Your task to perform on an android device: set an alarm Image 0: 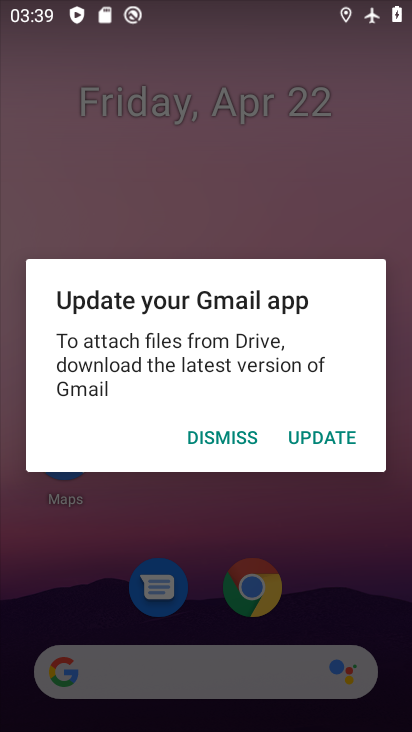
Step 0: press home button
Your task to perform on an android device: set an alarm Image 1: 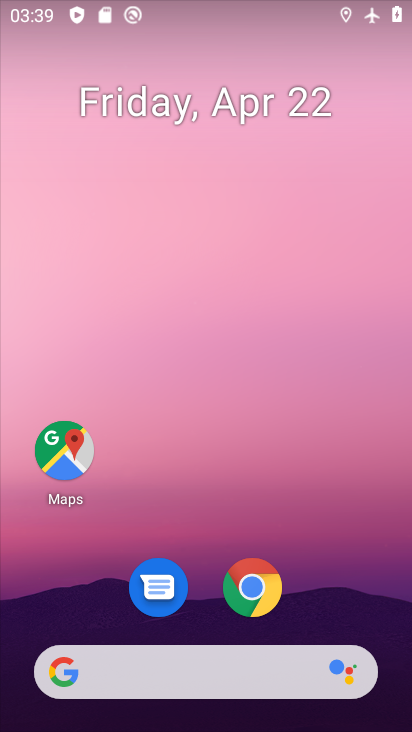
Step 1: drag from (220, 497) to (232, 15)
Your task to perform on an android device: set an alarm Image 2: 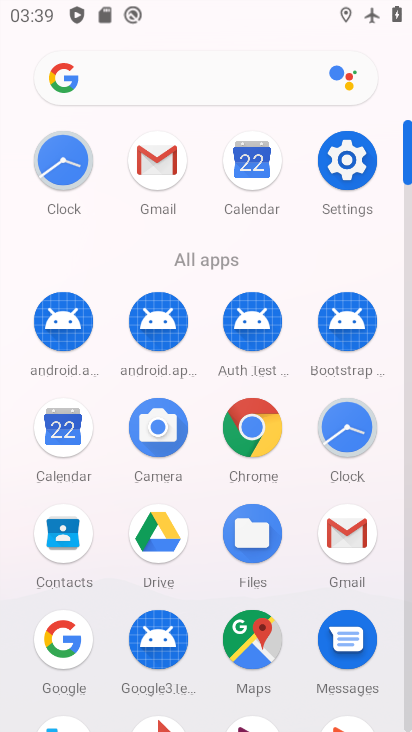
Step 2: click (61, 161)
Your task to perform on an android device: set an alarm Image 3: 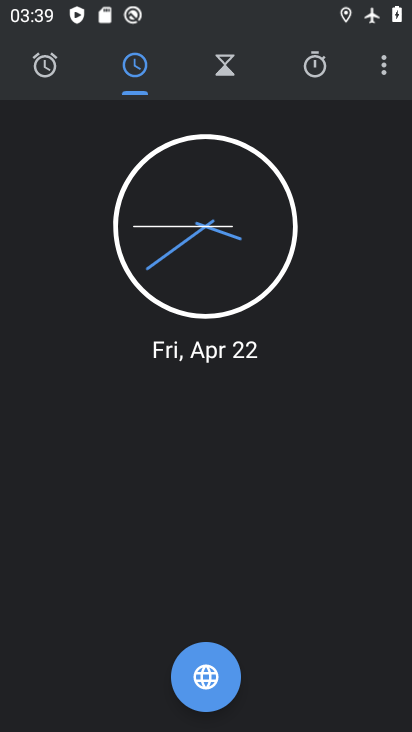
Step 3: click (41, 72)
Your task to perform on an android device: set an alarm Image 4: 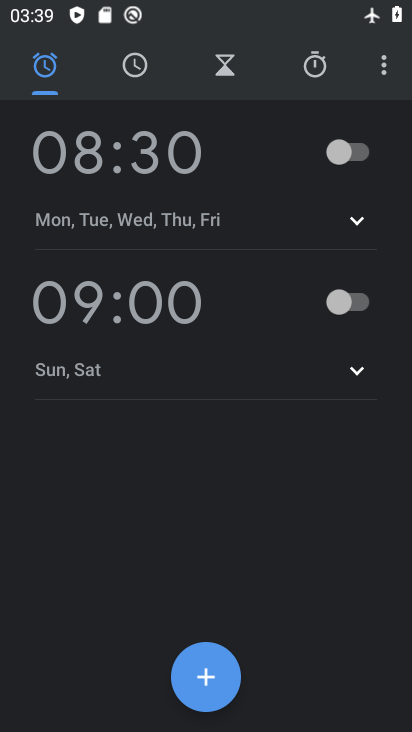
Step 4: click (201, 673)
Your task to perform on an android device: set an alarm Image 5: 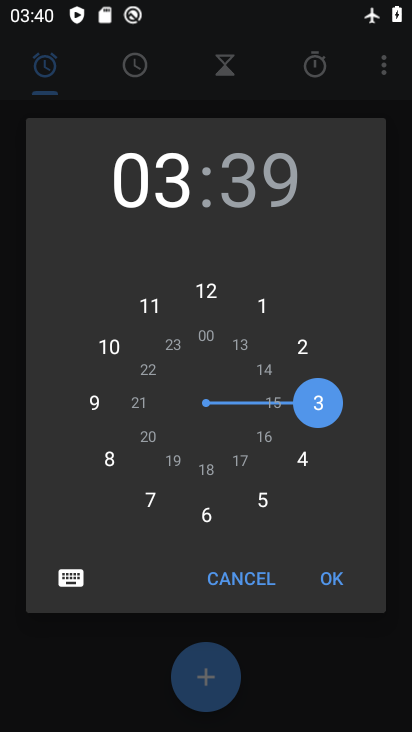
Step 5: click (213, 295)
Your task to perform on an android device: set an alarm Image 6: 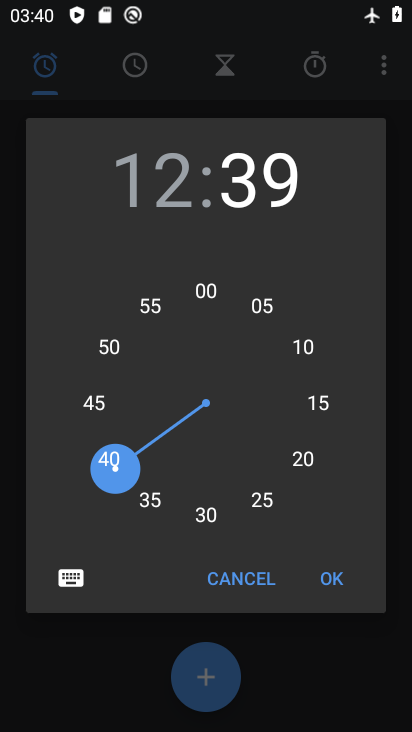
Step 6: click (257, 307)
Your task to perform on an android device: set an alarm Image 7: 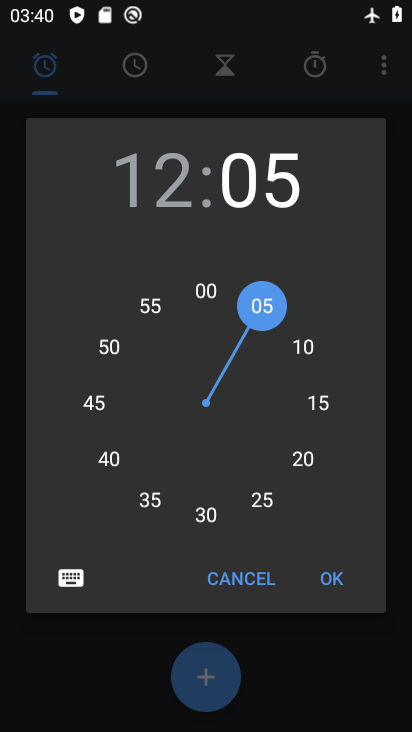
Step 7: click (143, 334)
Your task to perform on an android device: set an alarm Image 8: 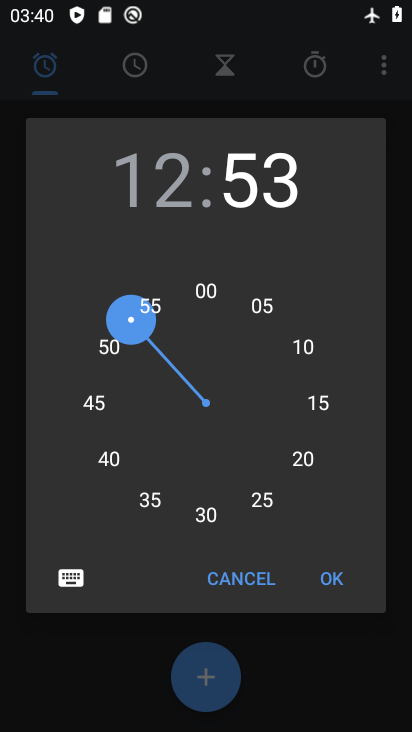
Step 8: click (149, 199)
Your task to perform on an android device: set an alarm Image 9: 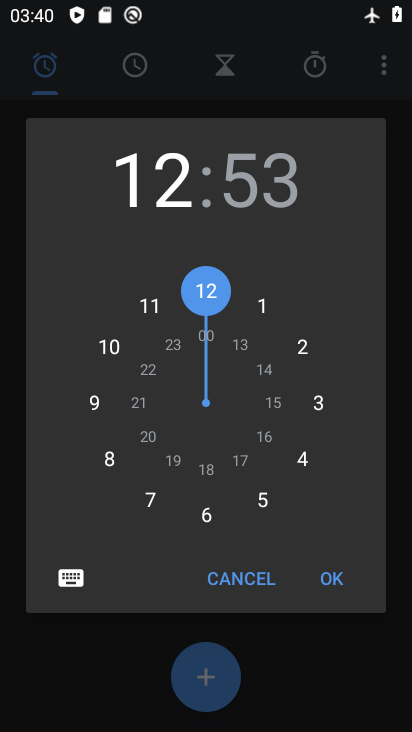
Step 9: click (259, 295)
Your task to perform on an android device: set an alarm Image 10: 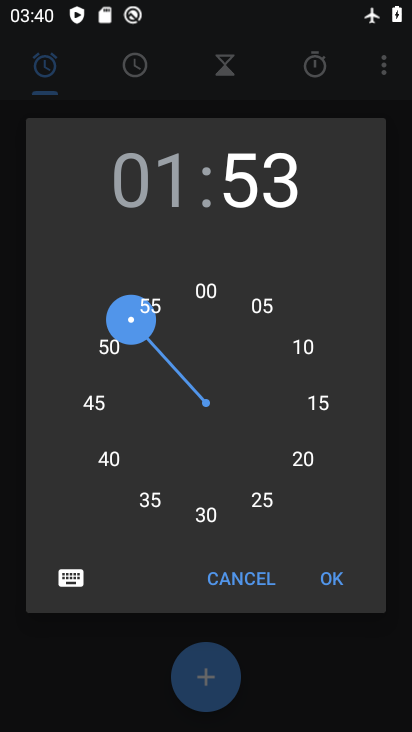
Step 10: click (337, 578)
Your task to perform on an android device: set an alarm Image 11: 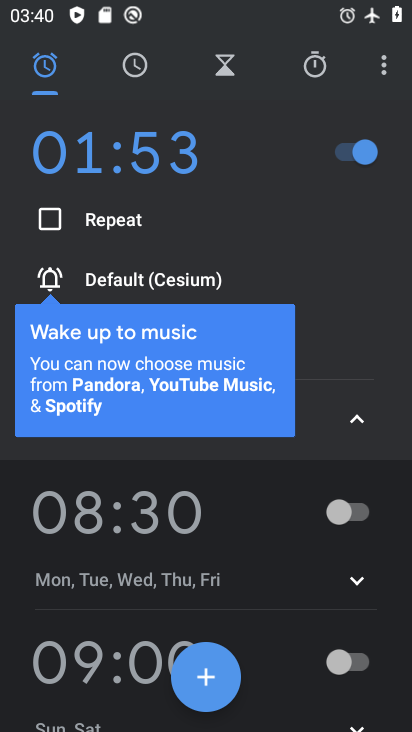
Step 11: click (350, 423)
Your task to perform on an android device: set an alarm Image 12: 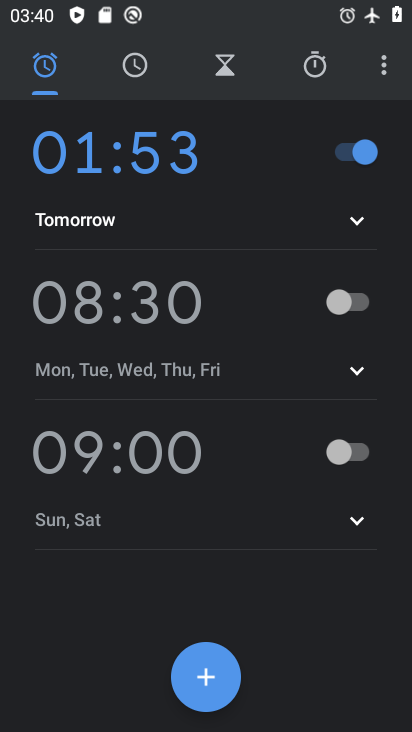
Step 12: task complete